Your task to perform on an android device: Open accessibility settings Image 0: 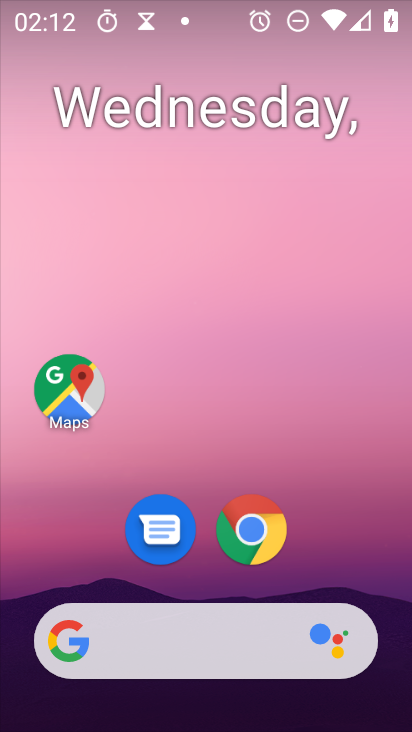
Step 0: drag from (286, 677) to (327, 113)
Your task to perform on an android device: Open accessibility settings Image 1: 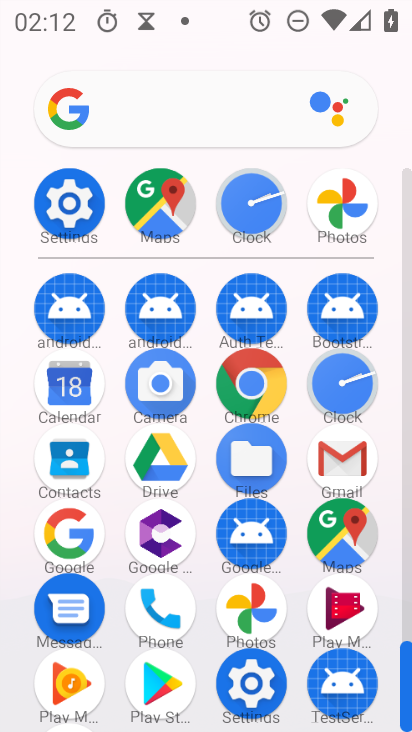
Step 1: click (89, 217)
Your task to perform on an android device: Open accessibility settings Image 2: 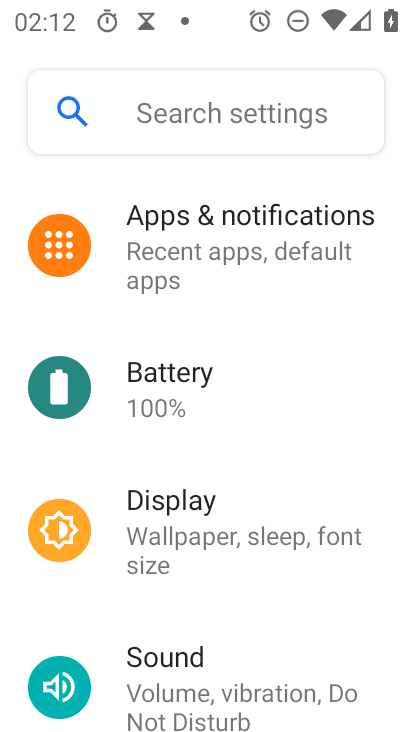
Step 2: drag from (233, 651) to (247, 219)
Your task to perform on an android device: Open accessibility settings Image 3: 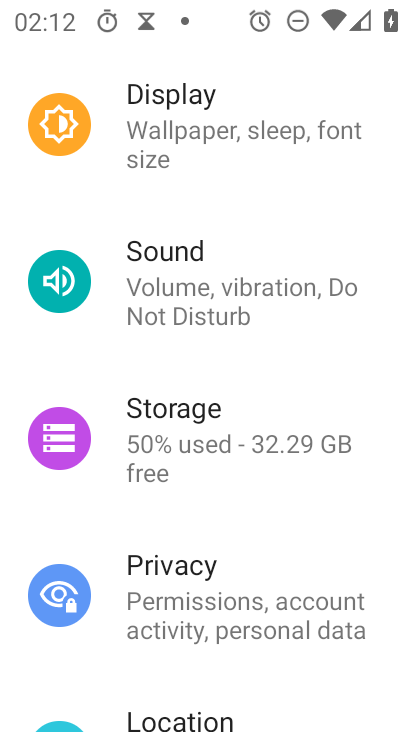
Step 3: drag from (281, 648) to (295, 234)
Your task to perform on an android device: Open accessibility settings Image 4: 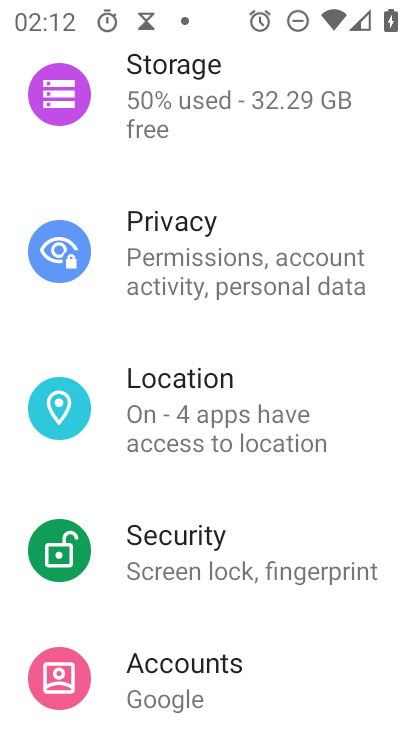
Step 4: drag from (258, 691) to (319, 307)
Your task to perform on an android device: Open accessibility settings Image 5: 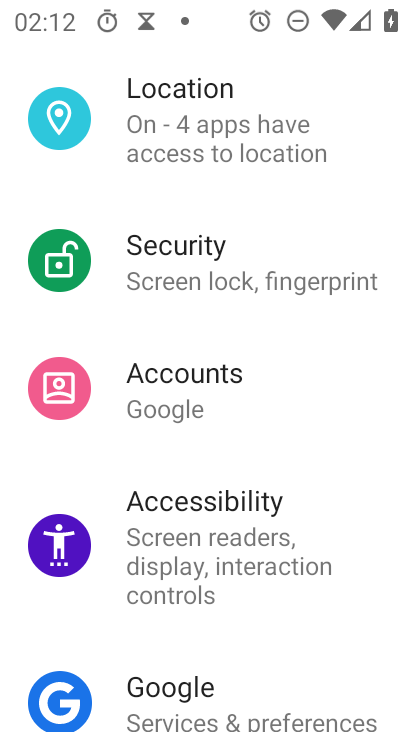
Step 5: click (262, 510)
Your task to perform on an android device: Open accessibility settings Image 6: 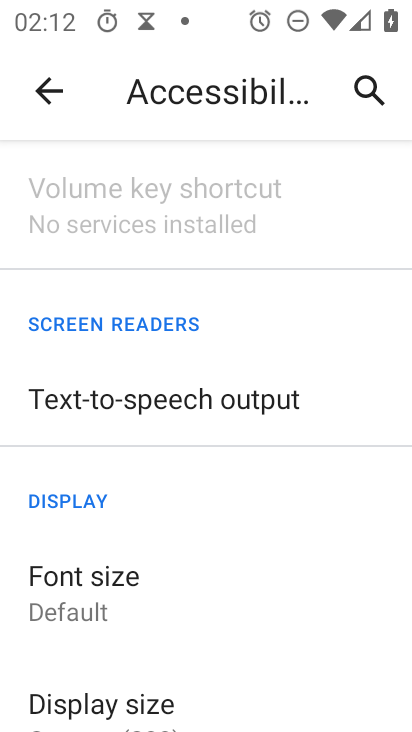
Step 6: task complete